Your task to perform on an android device: turn on translation in the chrome app Image 0: 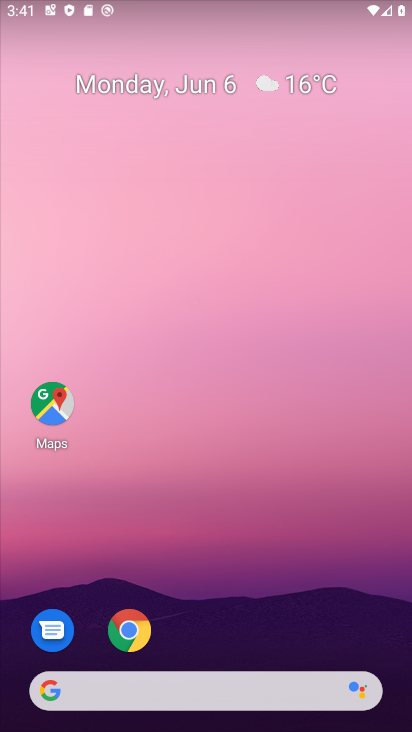
Step 0: drag from (292, 518) to (230, 48)
Your task to perform on an android device: turn on translation in the chrome app Image 1: 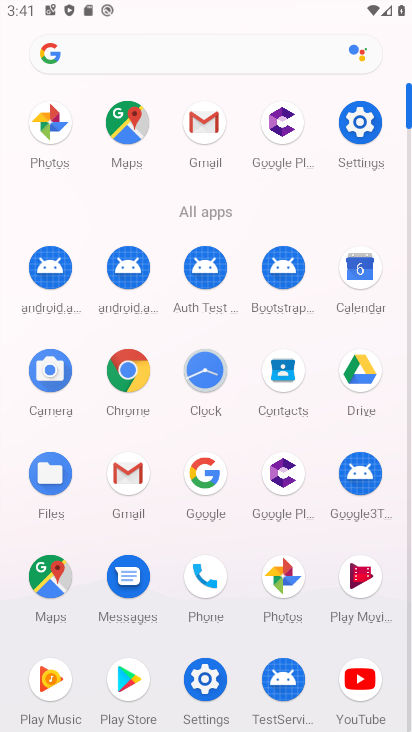
Step 1: click (135, 364)
Your task to perform on an android device: turn on translation in the chrome app Image 2: 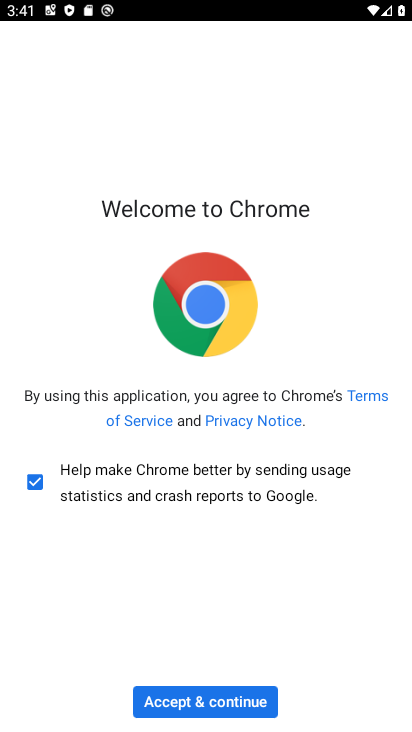
Step 2: click (190, 696)
Your task to perform on an android device: turn on translation in the chrome app Image 3: 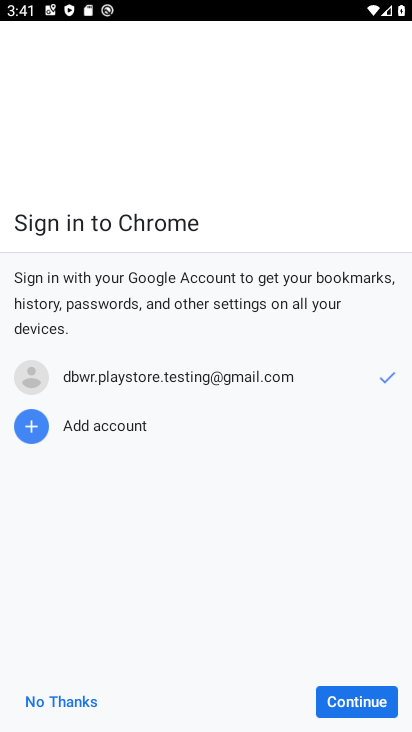
Step 3: click (363, 696)
Your task to perform on an android device: turn on translation in the chrome app Image 4: 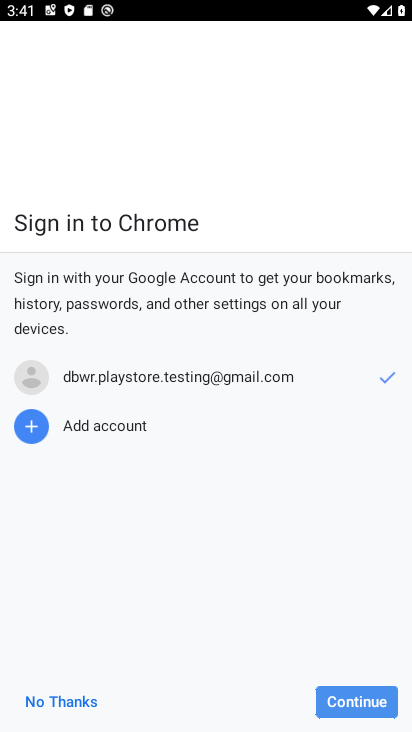
Step 4: click (365, 696)
Your task to perform on an android device: turn on translation in the chrome app Image 5: 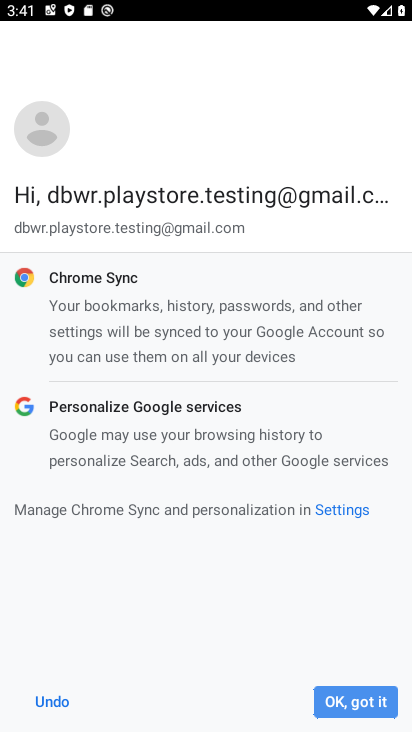
Step 5: click (368, 695)
Your task to perform on an android device: turn on translation in the chrome app Image 6: 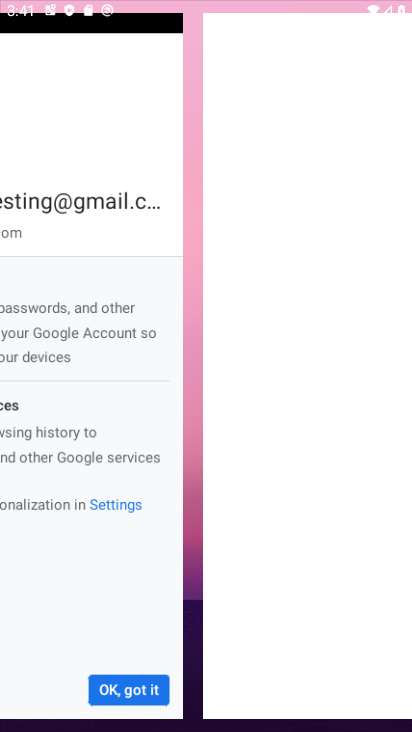
Step 6: click (368, 694)
Your task to perform on an android device: turn on translation in the chrome app Image 7: 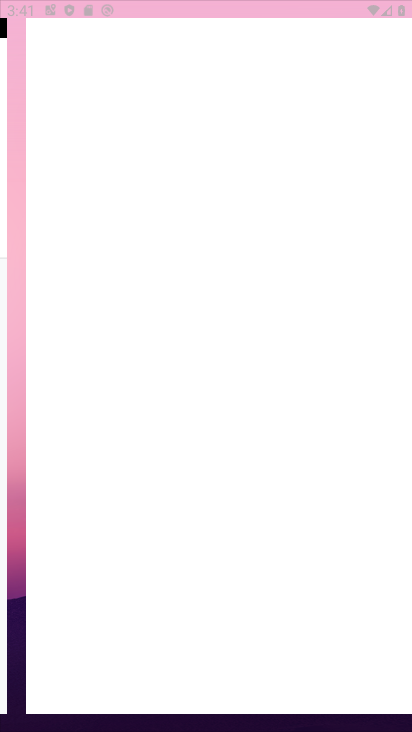
Step 7: click (368, 693)
Your task to perform on an android device: turn on translation in the chrome app Image 8: 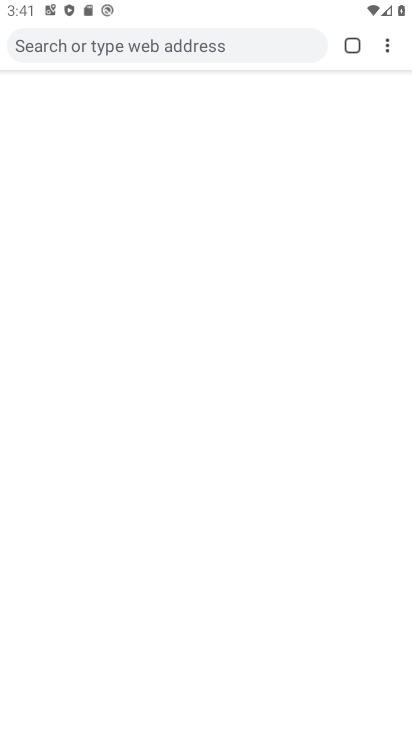
Step 8: click (390, 44)
Your task to perform on an android device: turn on translation in the chrome app Image 9: 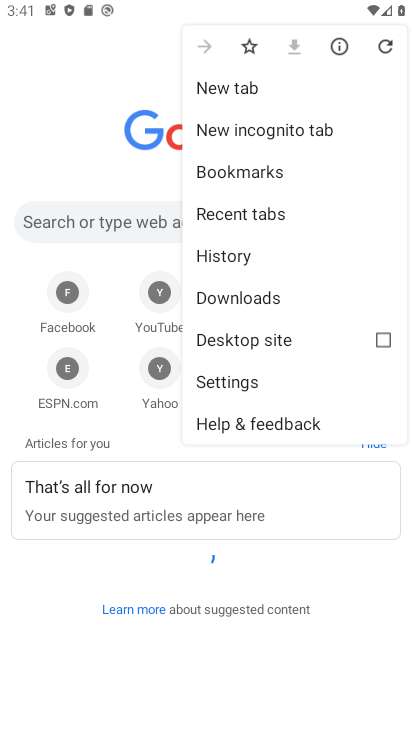
Step 9: click (238, 383)
Your task to perform on an android device: turn on translation in the chrome app Image 10: 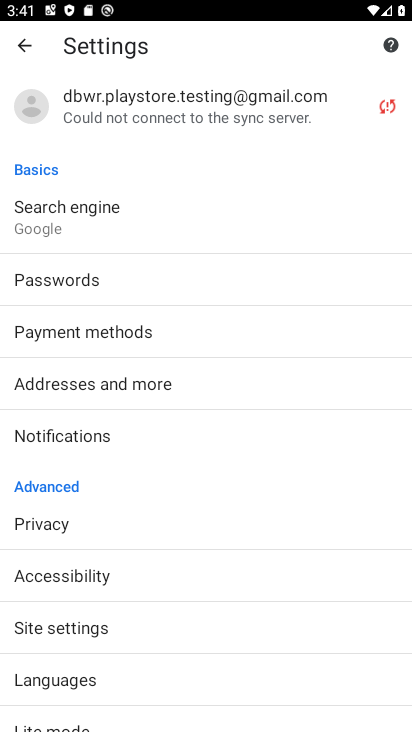
Step 10: drag from (180, 591) to (211, 269)
Your task to perform on an android device: turn on translation in the chrome app Image 11: 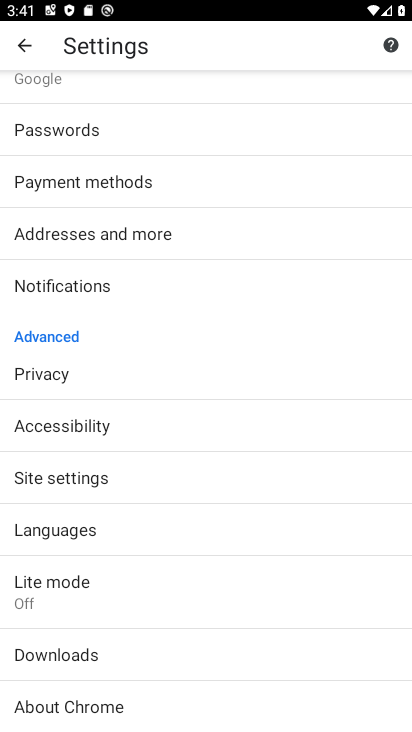
Step 11: click (106, 543)
Your task to perform on an android device: turn on translation in the chrome app Image 12: 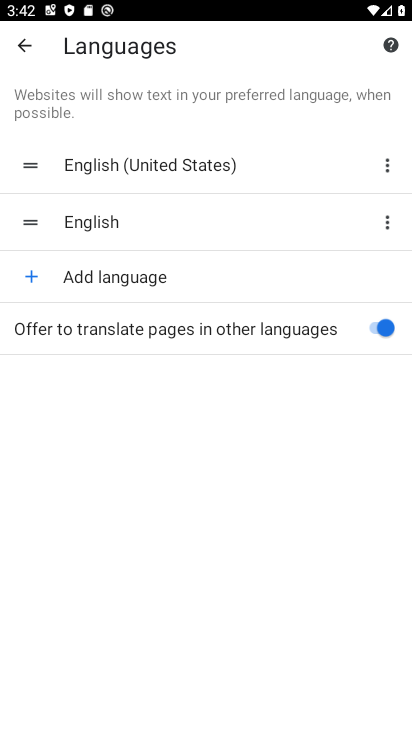
Step 12: task complete